Your task to perform on an android device: open sync settings in chrome Image 0: 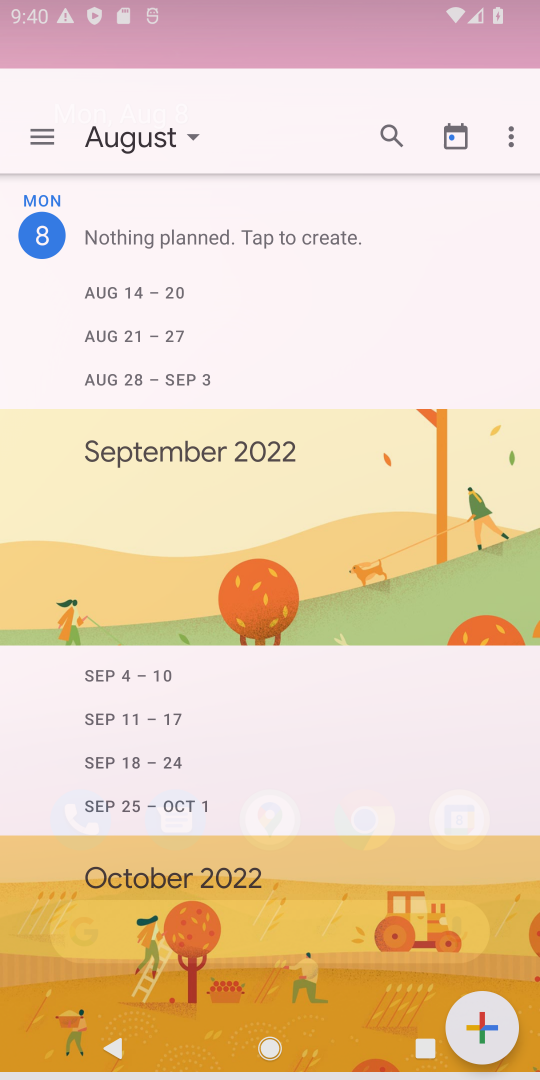
Step 0: press home button
Your task to perform on an android device: open sync settings in chrome Image 1: 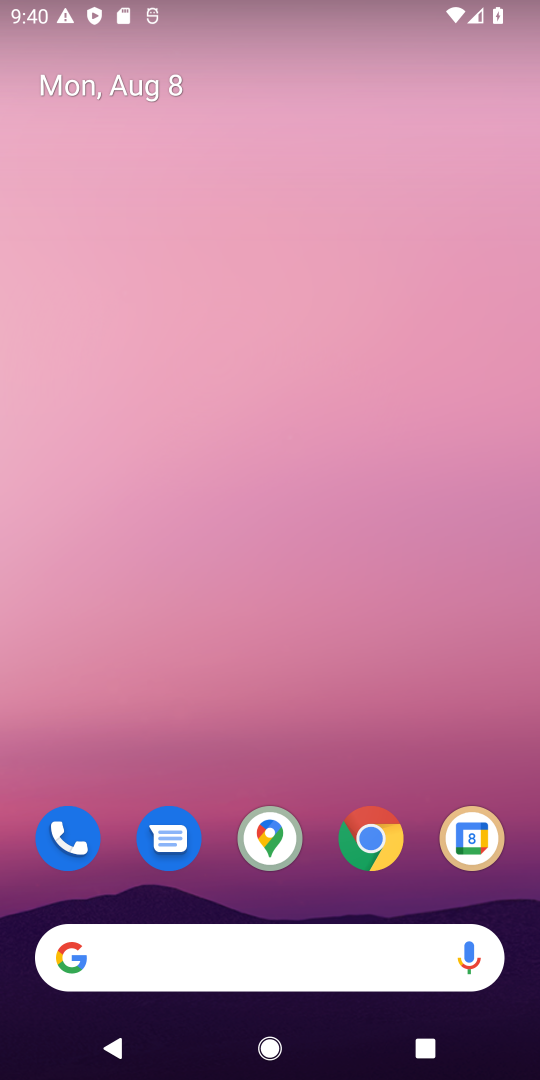
Step 1: drag from (302, 864) to (305, 201)
Your task to perform on an android device: open sync settings in chrome Image 2: 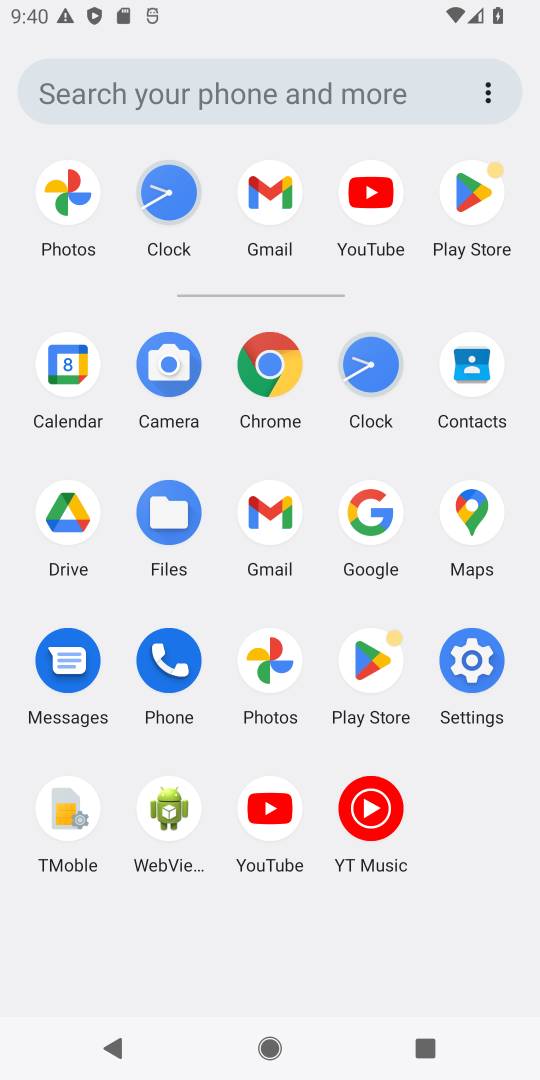
Step 2: click (272, 371)
Your task to perform on an android device: open sync settings in chrome Image 3: 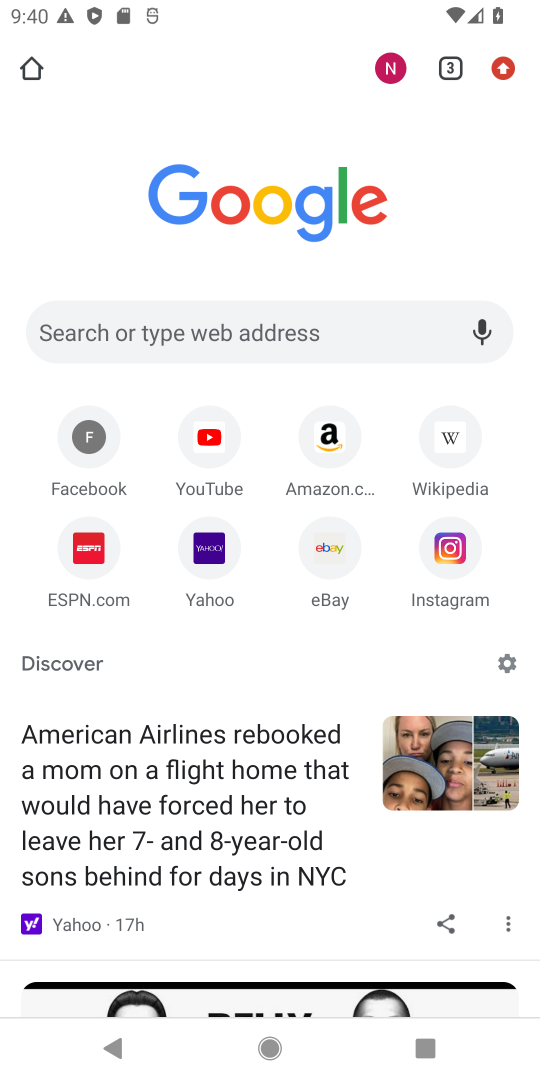
Step 3: drag from (493, 76) to (265, 717)
Your task to perform on an android device: open sync settings in chrome Image 4: 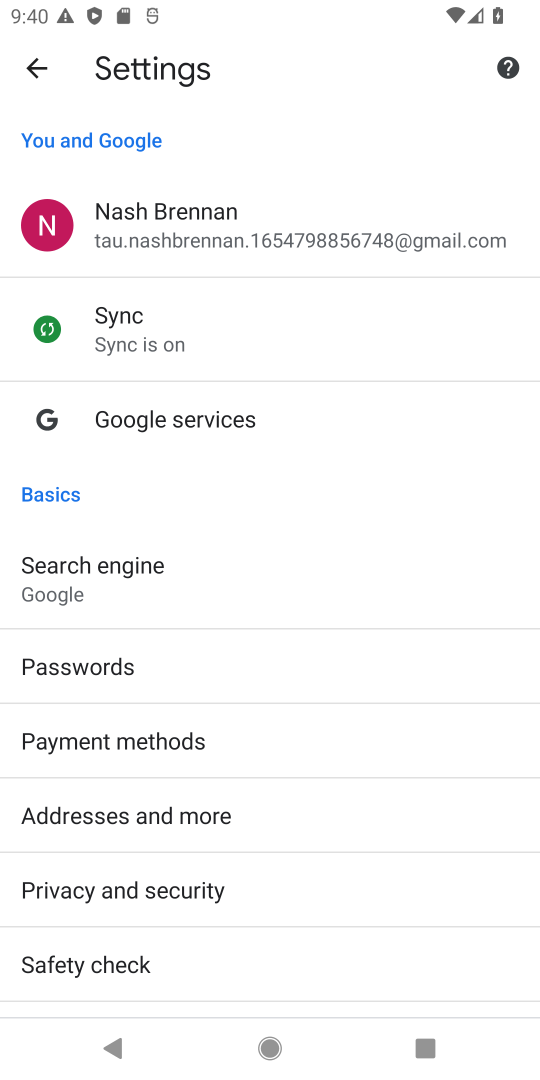
Step 4: click (116, 328)
Your task to perform on an android device: open sync settings in chrome Image 5: 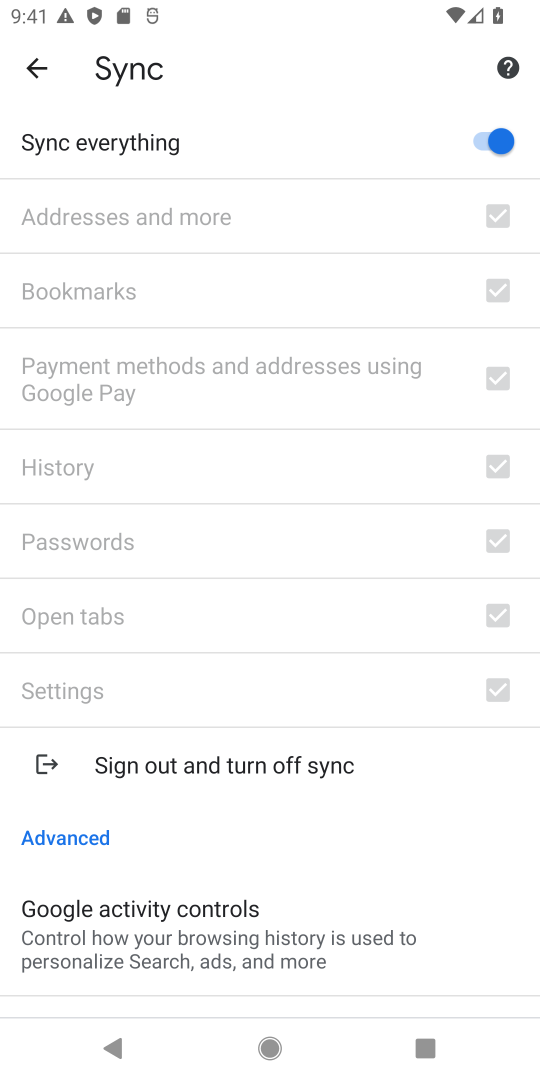
Step 5: task complete